Your task to perform on an android device: Go to sound settings Image 0: 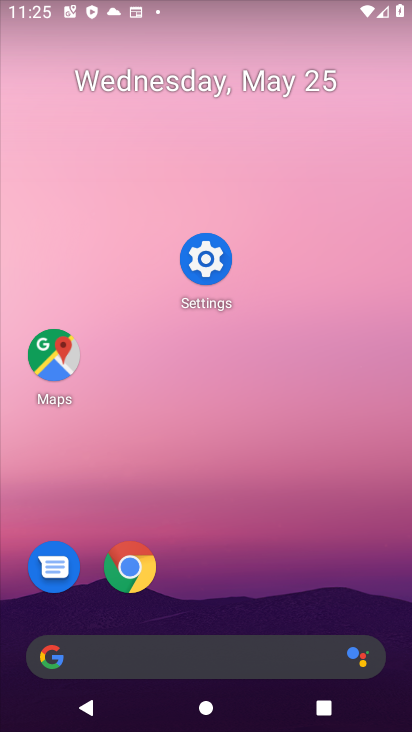
Step 0: click (223, 268)
Your task to perform on an android device: Go to sound settings Image 1: 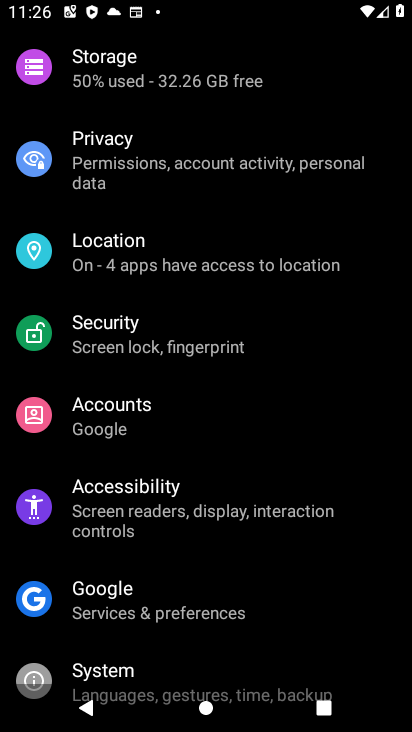
Step 1: drag from (205, 165) to (301, 652)
Your task to perform on an android device: Go to sound settings Image 2: 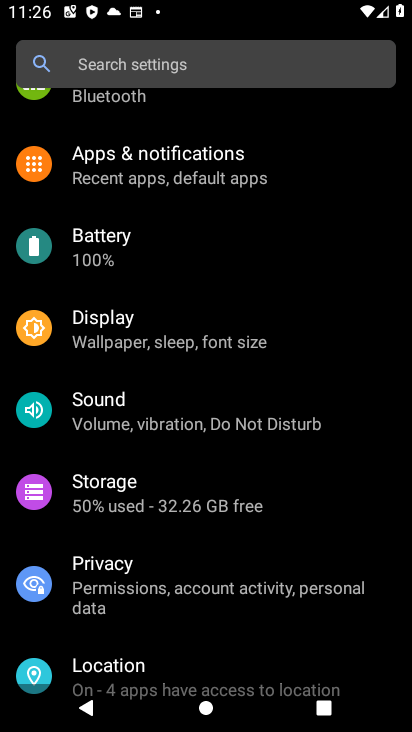
Step 2: drag from (187, 311) to (260, 706)
Your task to perform on an android device: Go to sound settings Image 3: 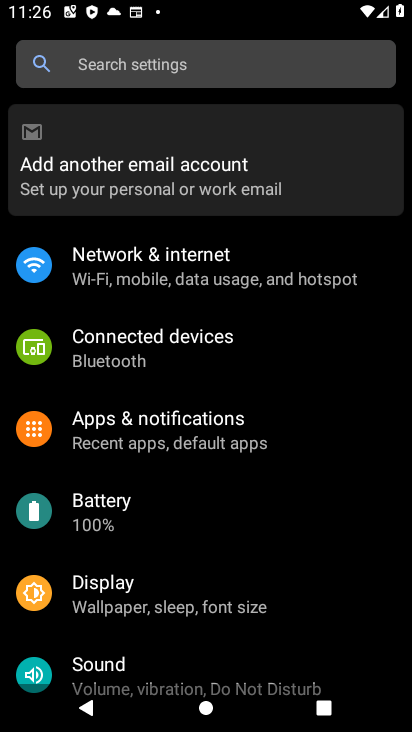
Step 3: click (187, 665)
Your task to perform on an android device: Go to sound settings Image 4: 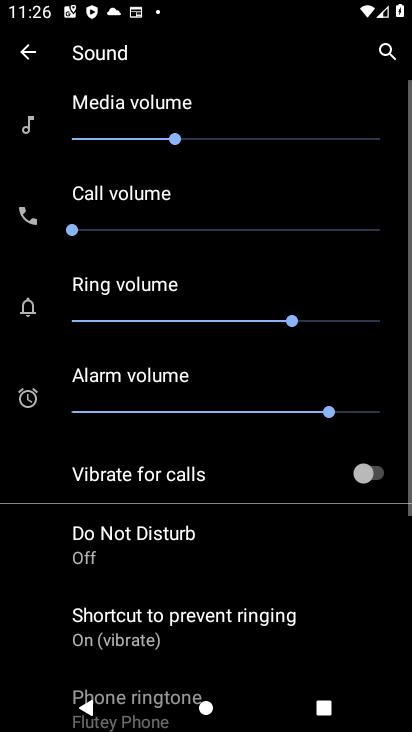
Step 4: task complete